Your task to perform on an android device: stop showing notifications on the lock screen Image 0: 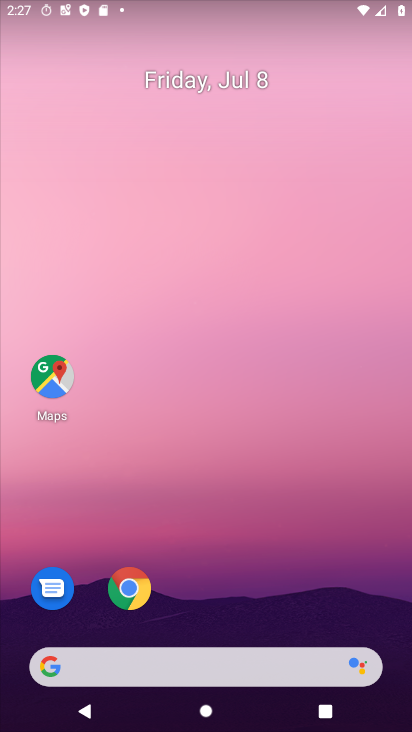
Step 0: press home button
Your task to perform on an android device: stop showing notifications on the lock screen Image 1: 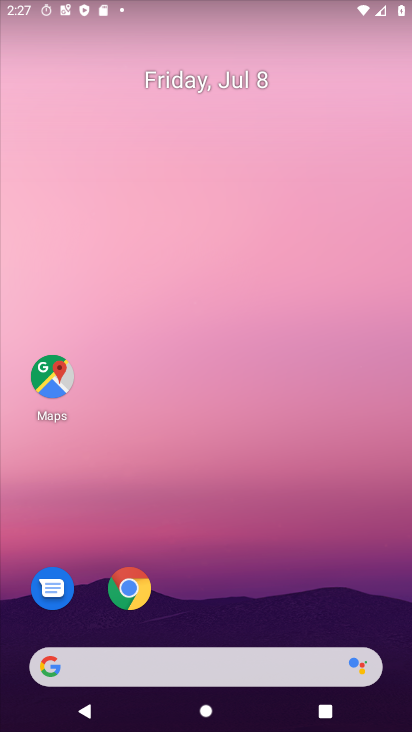
Step 1: drag from (240, 643) to (225, 61)
Your task to perform on an android device: stop showing notifications on the lock screen Image 2: 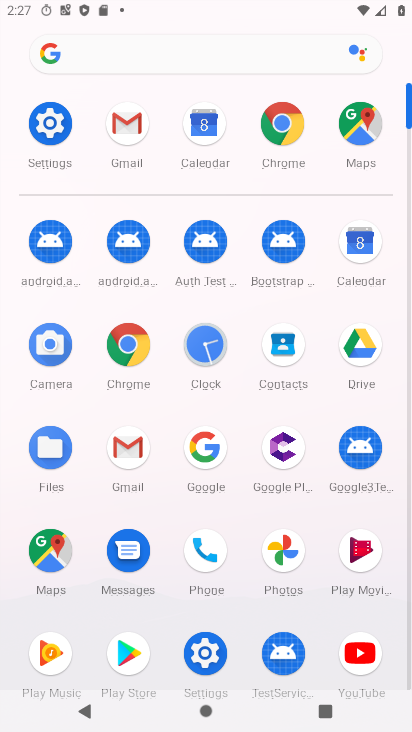
Step 2: click (44, 132)
Your task to perform on an android device: stop showing notifications on the lock screen Image 3: 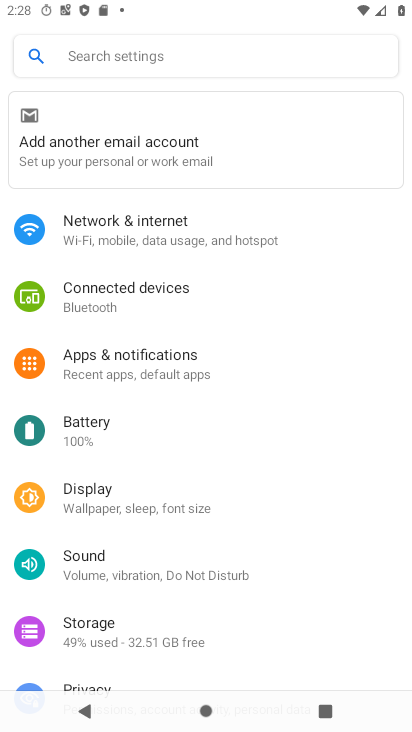
Step 3: click (114, 366)
Your task to perform on an android device: stop showing notifications on the lock screen Image 4: 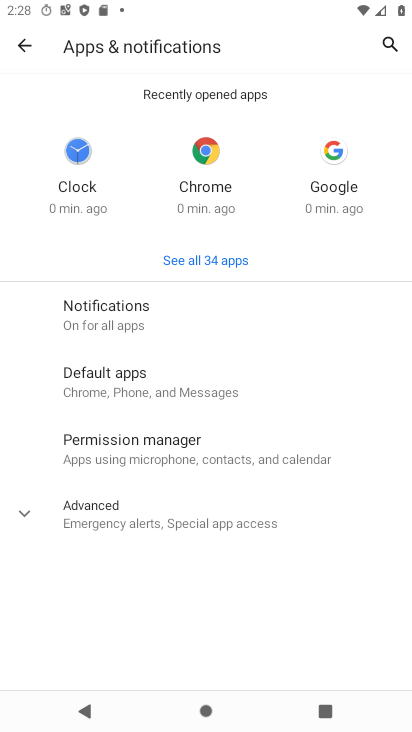
Step 4: click (94, 317)
Your task to perform on an android device: stop showing notifications on the lock screen Image 5: 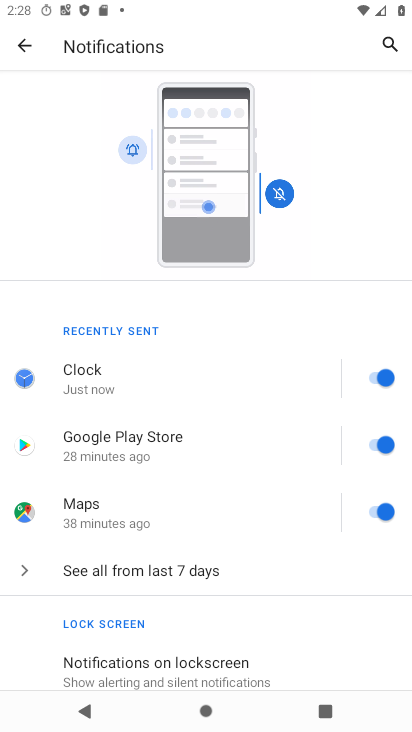
Step 5: drag from (320, 643) to (354, 447)
Your task to perform on an android device: stop showing notifications on the lock screen Image 6: 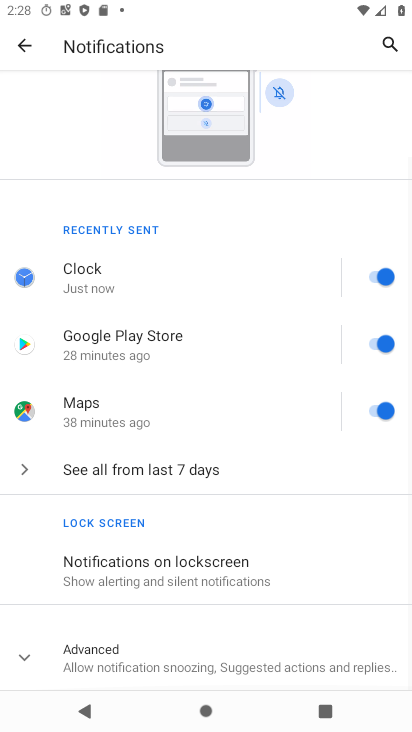
Step 6: click (159, 571)
Your task to perform on an android device: stop showing notifications on the lock screen Image 7: 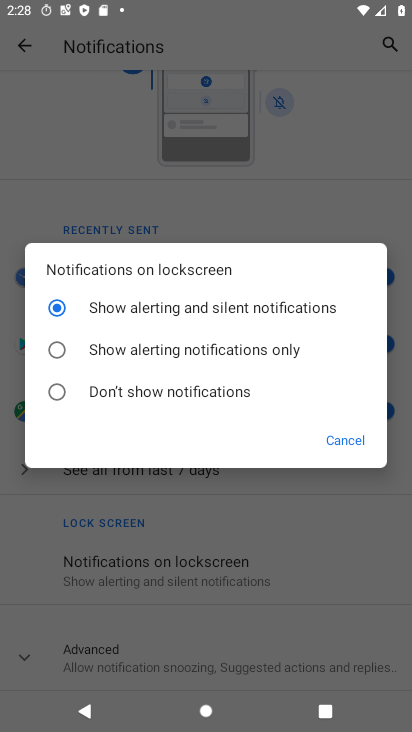
Step 7: click (59, 398)
Your task to perform on an android device: stop showing notifications on the lock screen Image 8: 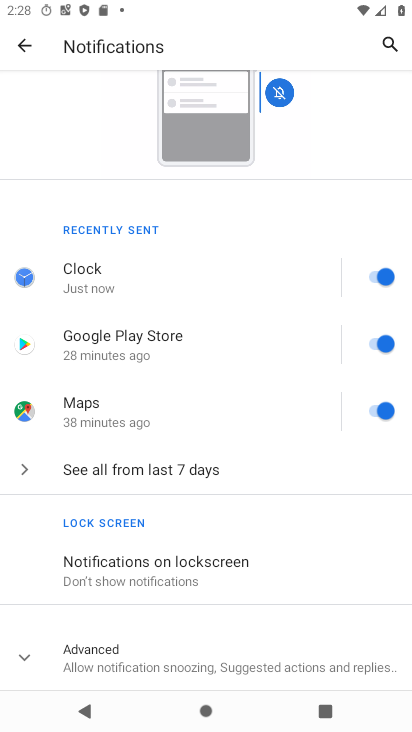
Step 8: task complete